Your task to perform on an android device: Open ESPN.com Image 0: 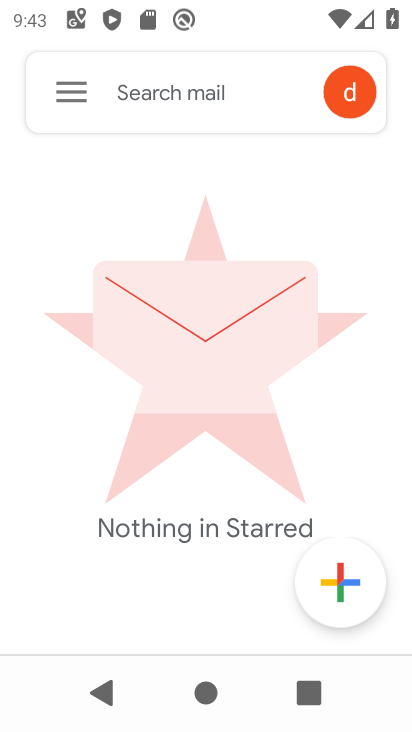
Step 0: press home button
Your task to perform on an android device: Open ESPN.com Image 1: 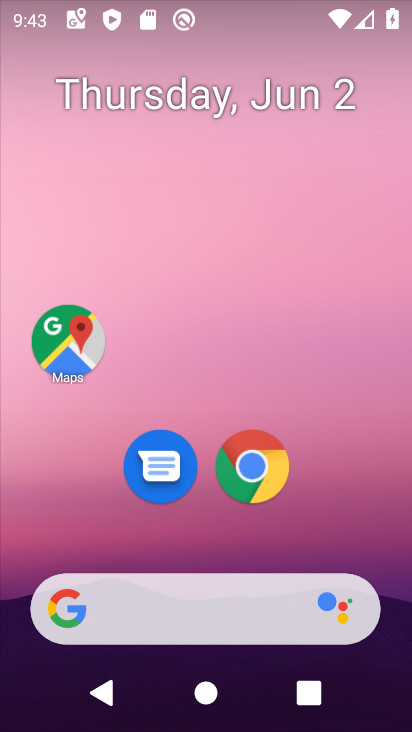
Step 1: click (251, 469)
Your task to perform on an android device: Open ESPN.com Image 2: 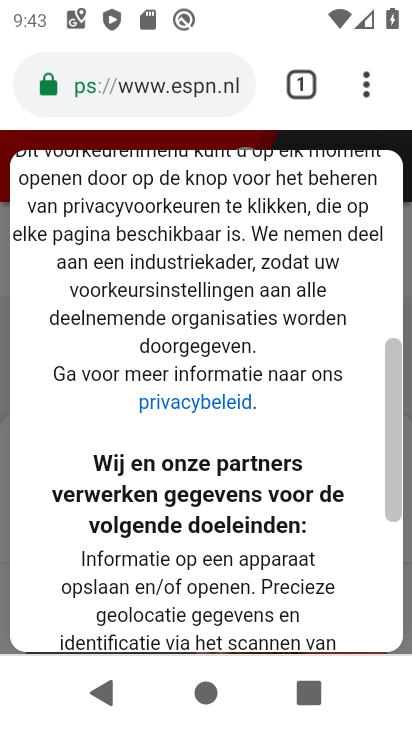
Step 2: task complete